Your task to perform on an android device: Open Reddit.com Image 0: 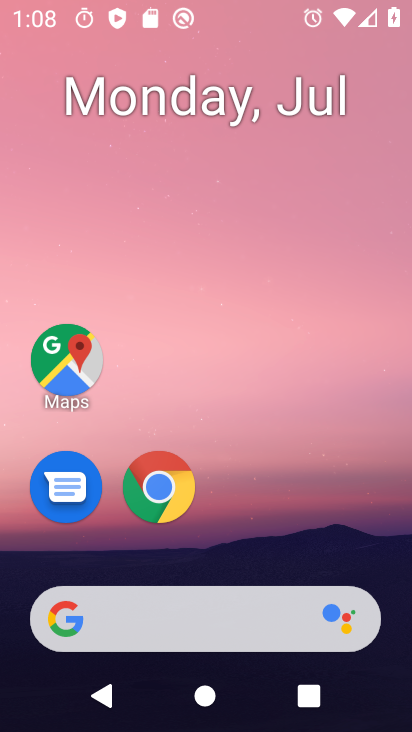
Step 0: press home button
Your task to perform on an android device: Open Reddit.com Image 1: 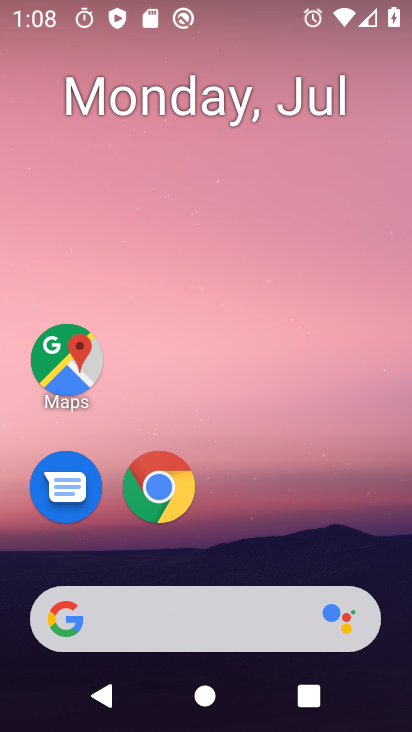
Step 1: click (71, 618)
Your task to perform on an android device: Open Reddit.com Image 2: 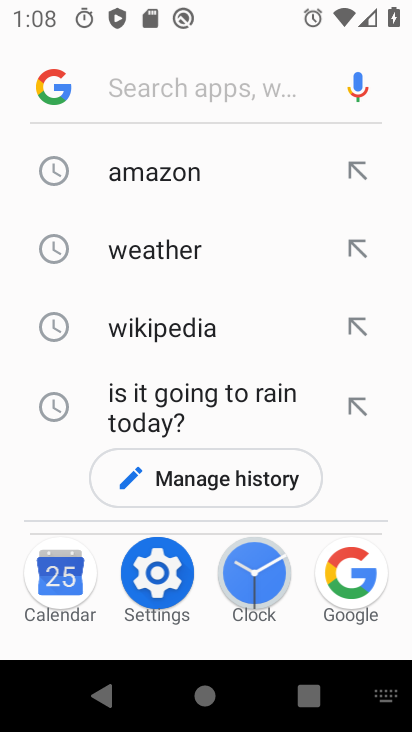
Step 2: type "Reddit.com"
Your task to perform on an android device: Open Reddit.com Image 3: 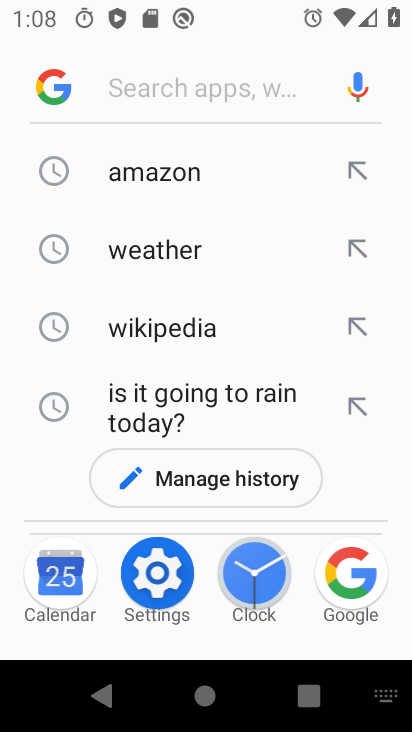
Step 3: click (181, 91)
Your task to perform on an android device: Open Reddit.com Image 4: 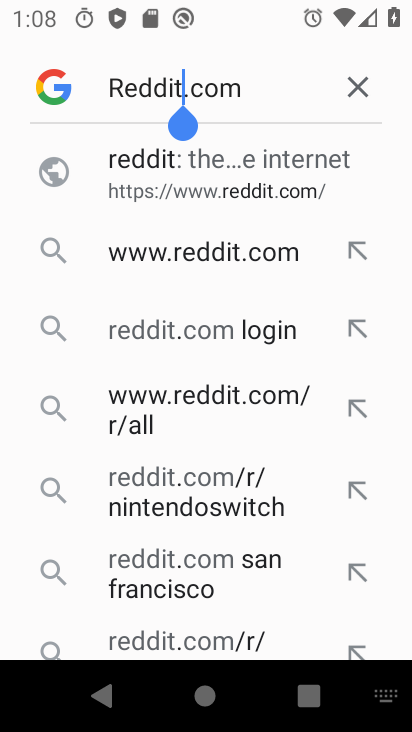
Step 4: click (226, 178)
Your task to perform on an android device: Open Reddit.com Image 5: 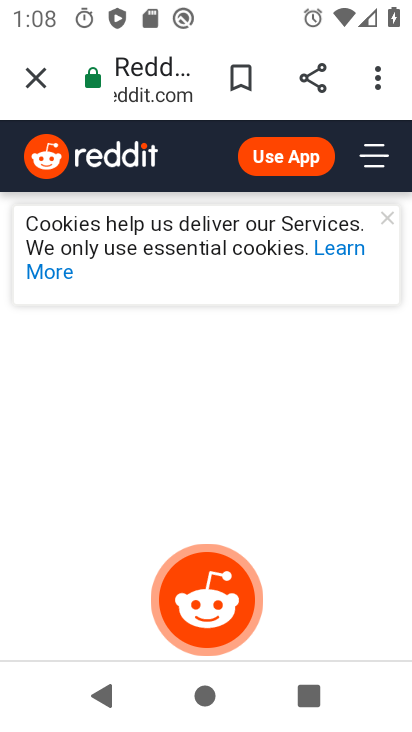
Step 5: task complete